Your task to perform on an android device: empty trash in the gmail app Image 0: 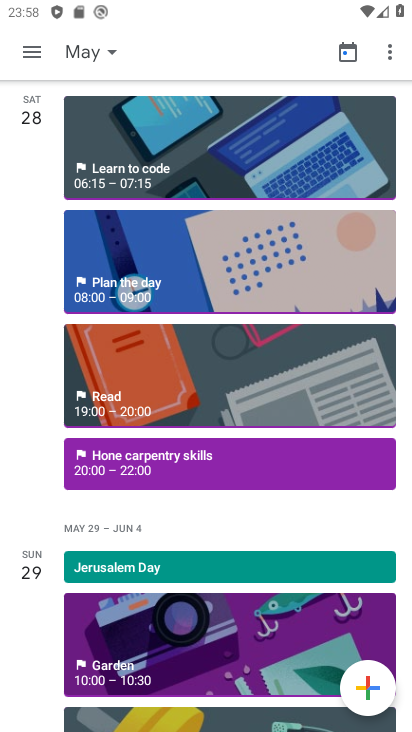
Step 0: press home button
Your task to perform on an android device: empty trash in the gmail app Image 1: 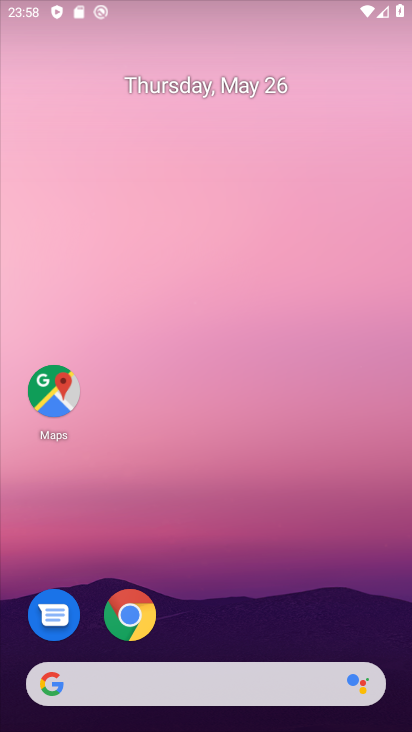
Step 1: drag from (314, 635) to (322, 38)
Your task to perform on an android device: empty trash in the gmail app Image 2: 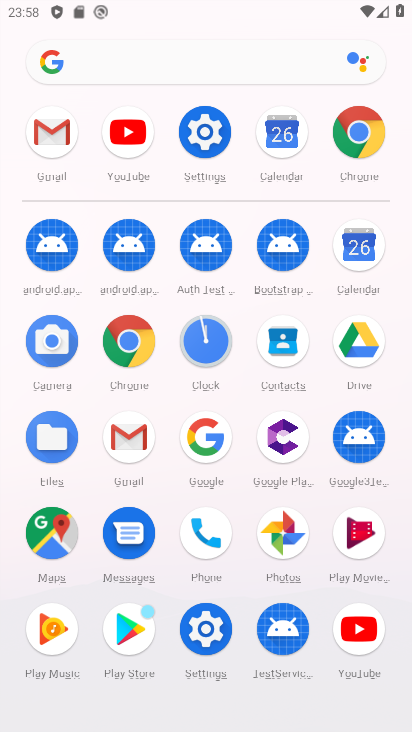
Step 2: click (73, 141)
Your task to perform on an android device: empty trash in the gmail app Image 3: 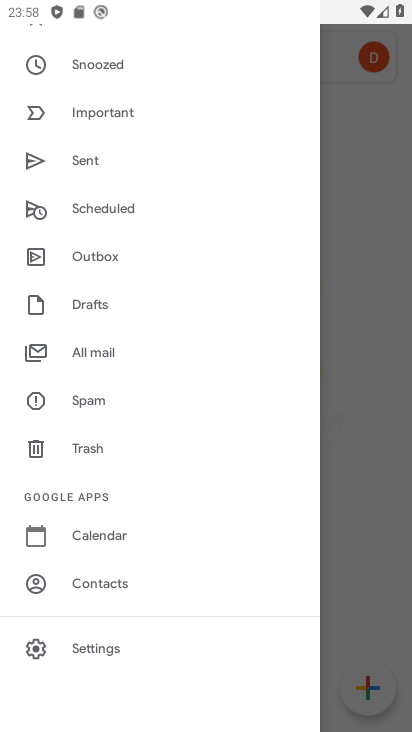
Step 3: click (111, 447)
Your task to perform on an android device: empty trash in the gmail app Image 4: 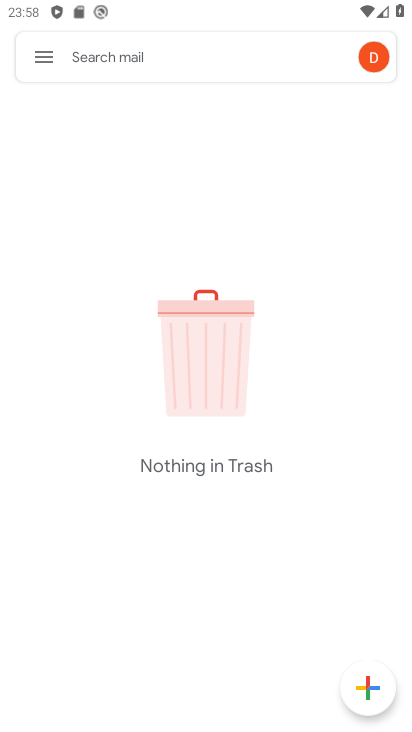
Step 4: task complete